Your task to perform on an android device: Open the web browser Image 0: 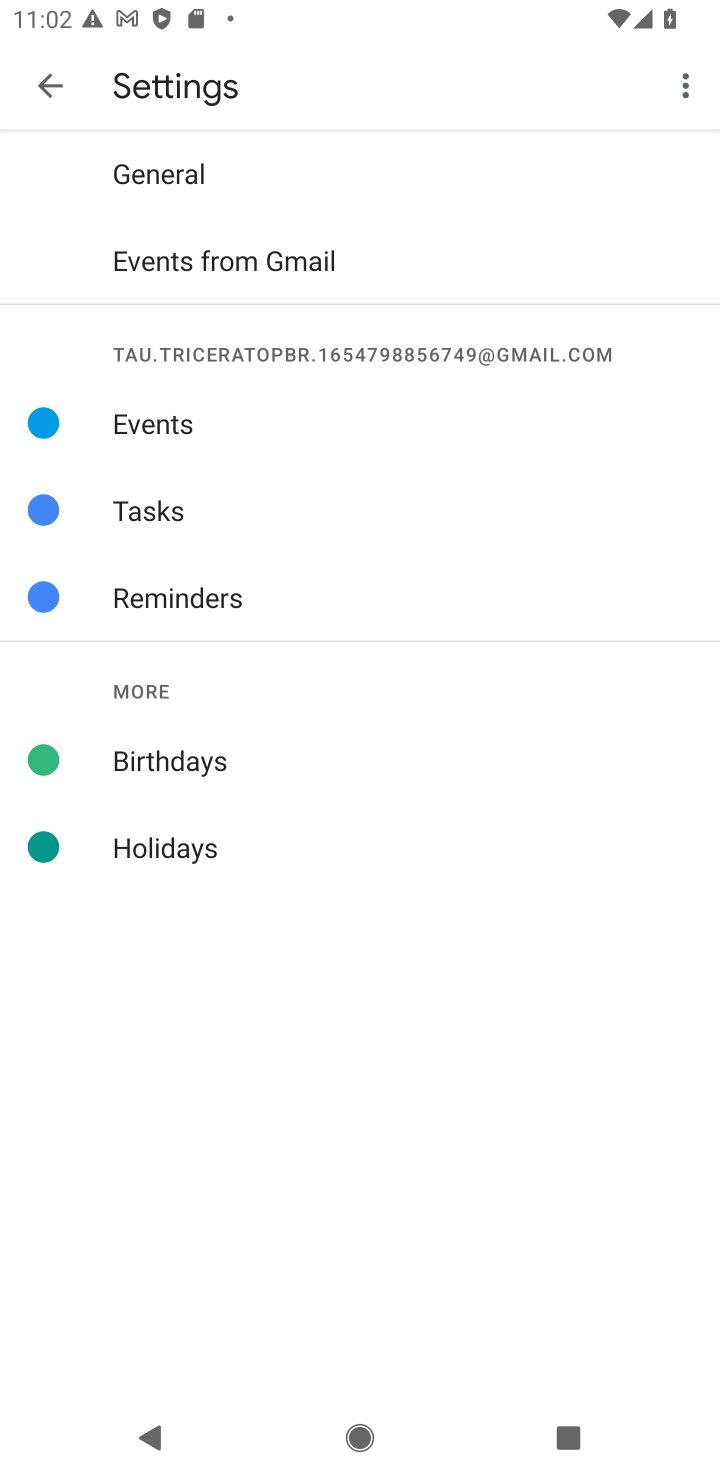
Step 0: press home button
Your task to perform on an android device: Open the web browser Image 1: 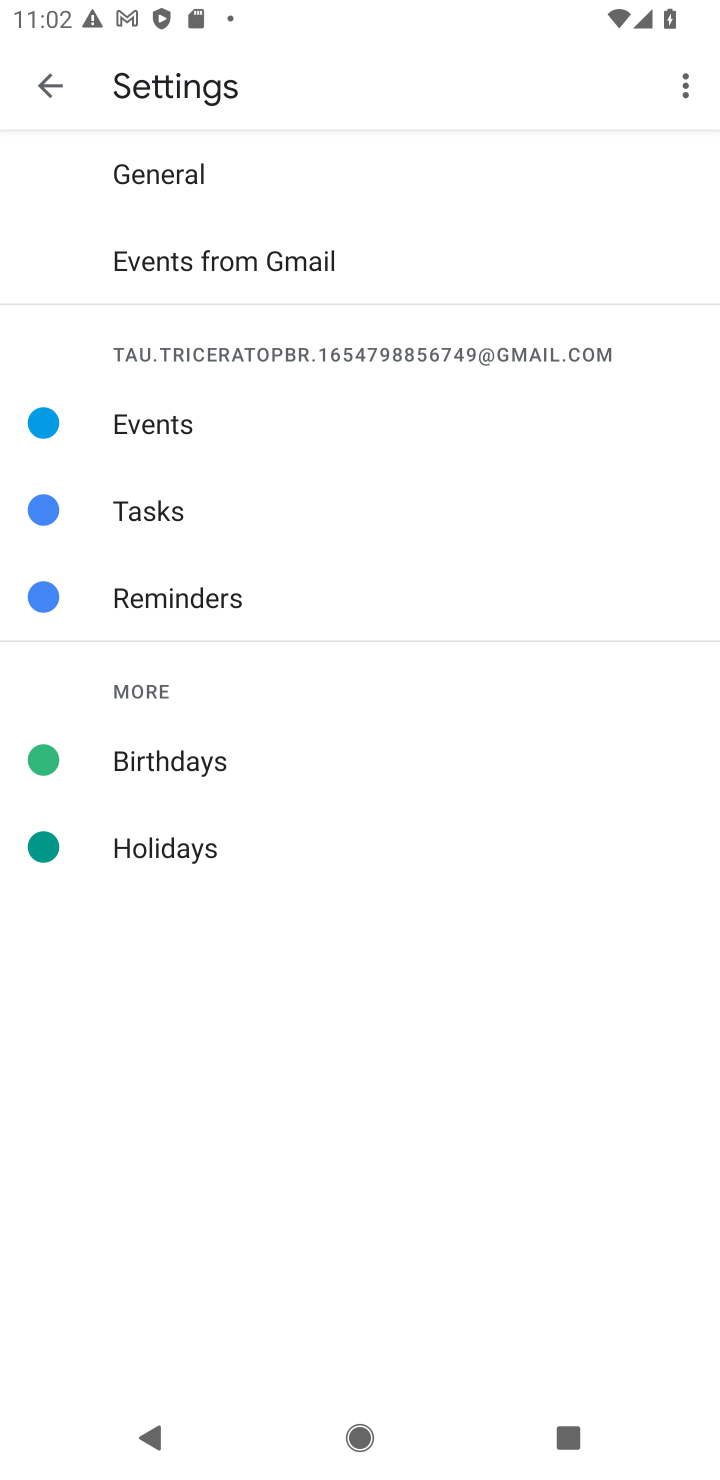
Step 1: press home button
Your task to perform on an android device: Open the web browser Image 2: 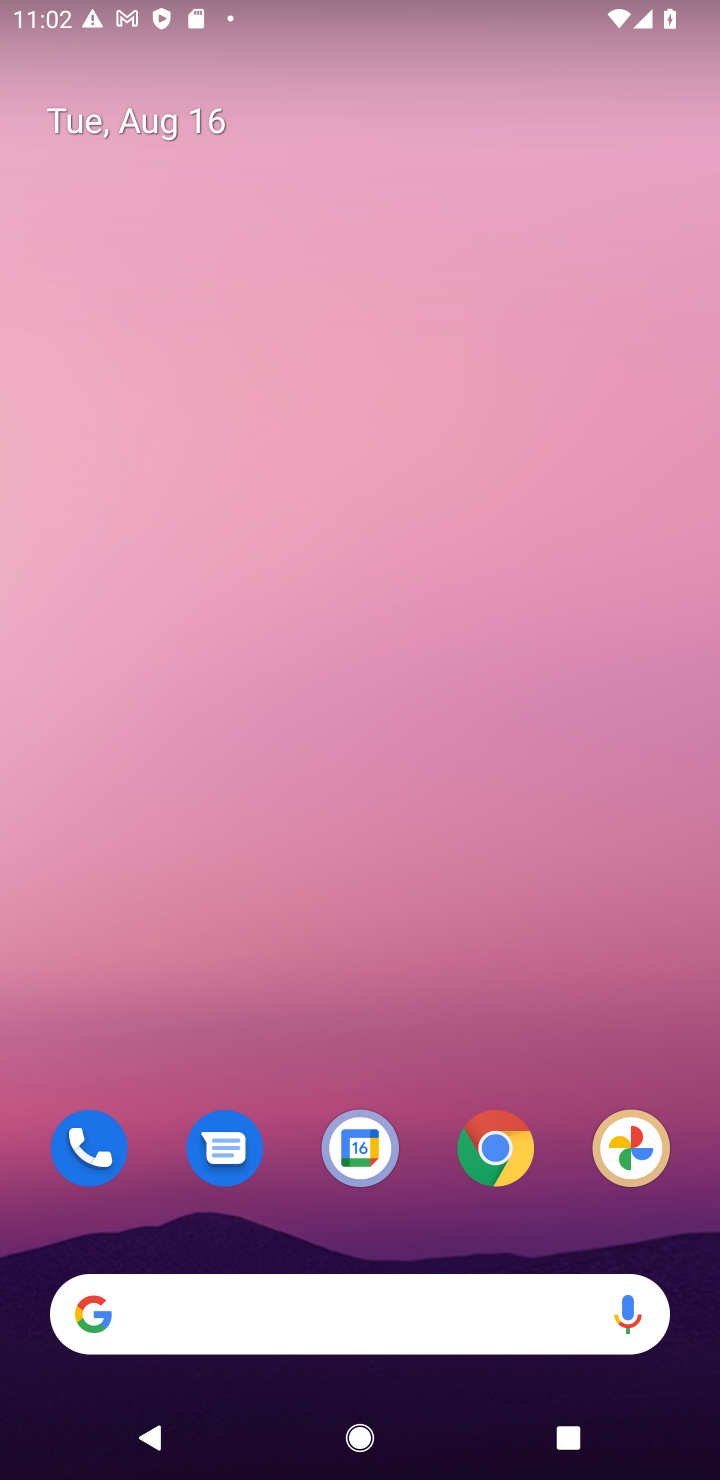
Step 2: press home button
Your task to perform on an android device: Open the web browser Image 3: 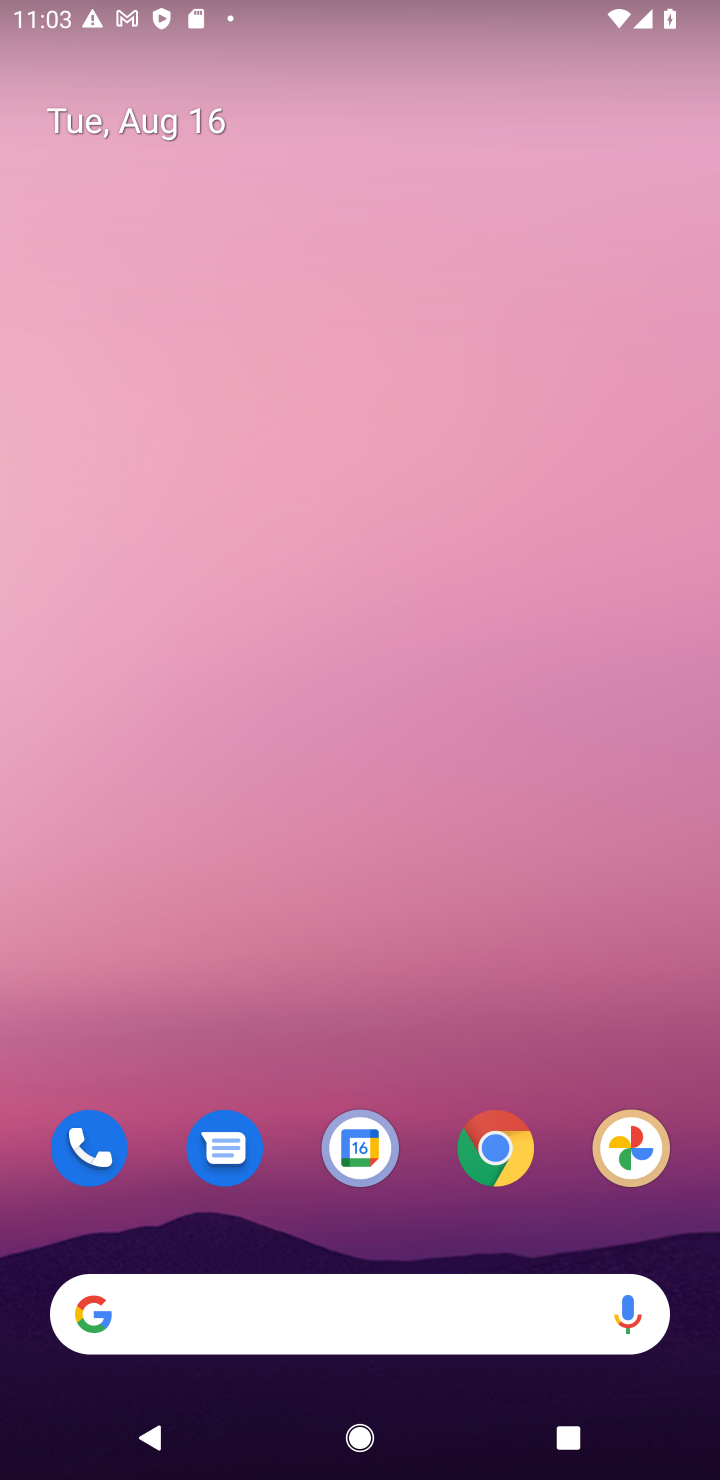
Step 3: drag from (635, 1371) to (238, 10)
Your task to perform on an android device: Open the web browser Image 4: 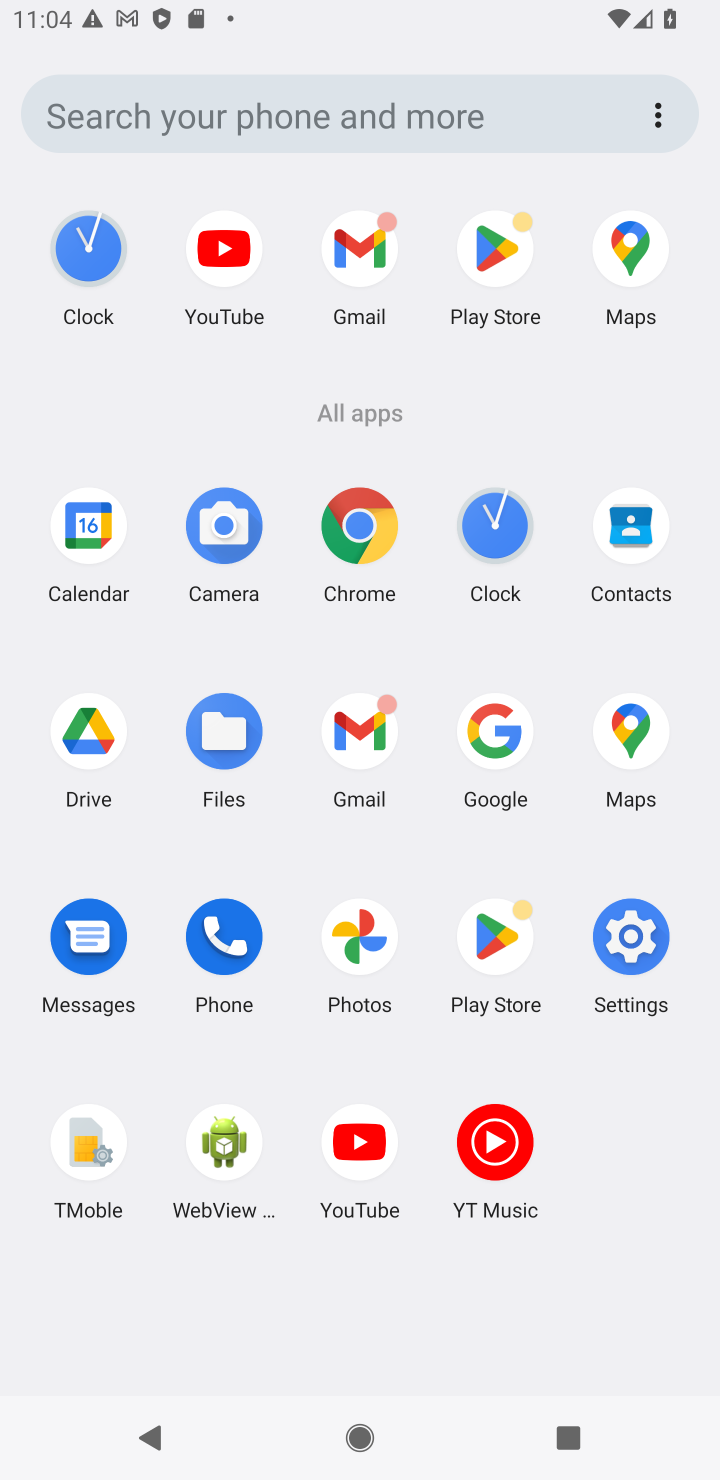
Step 4: click (358, 519)
Your task to perform on an android device: Open the web browser Image 5: 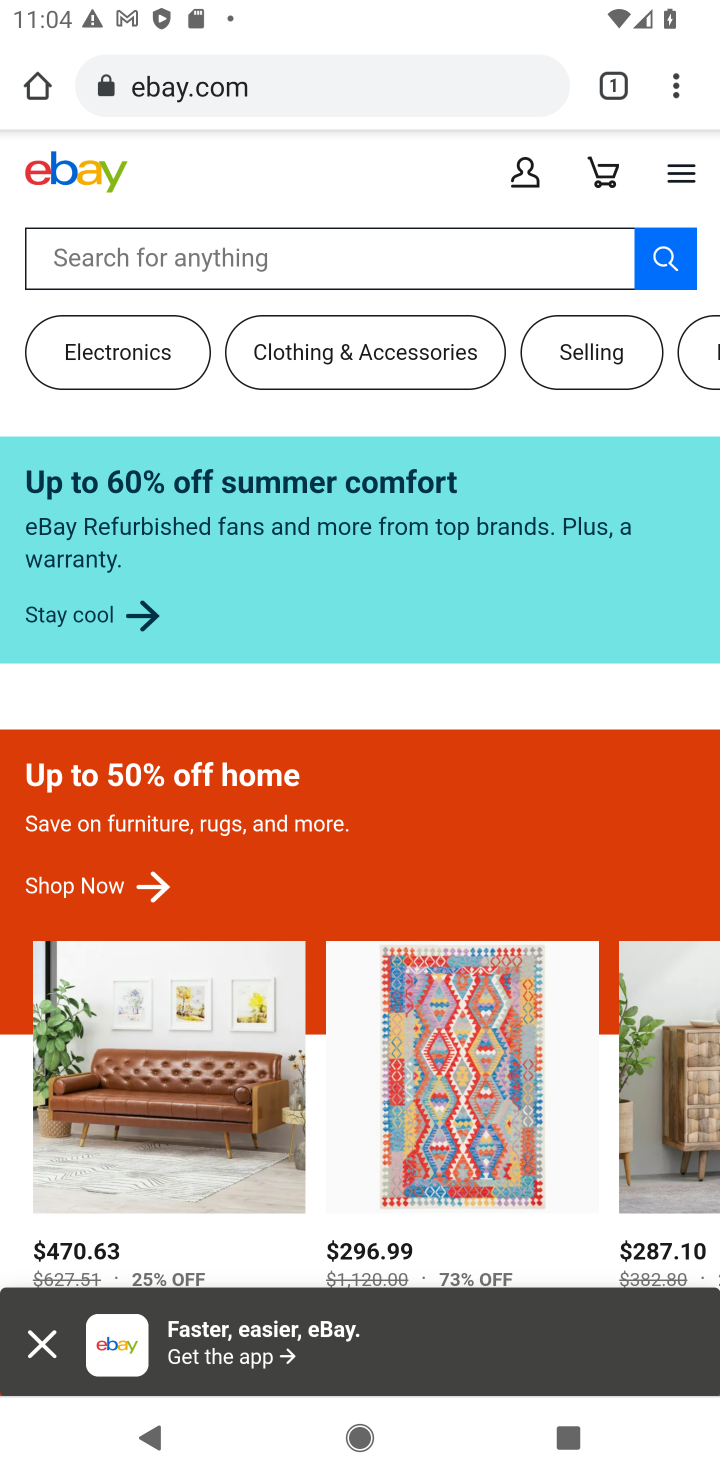
Step 5: click (214, 96)
Your task to perform on an android device: Open the web browser Image 6: 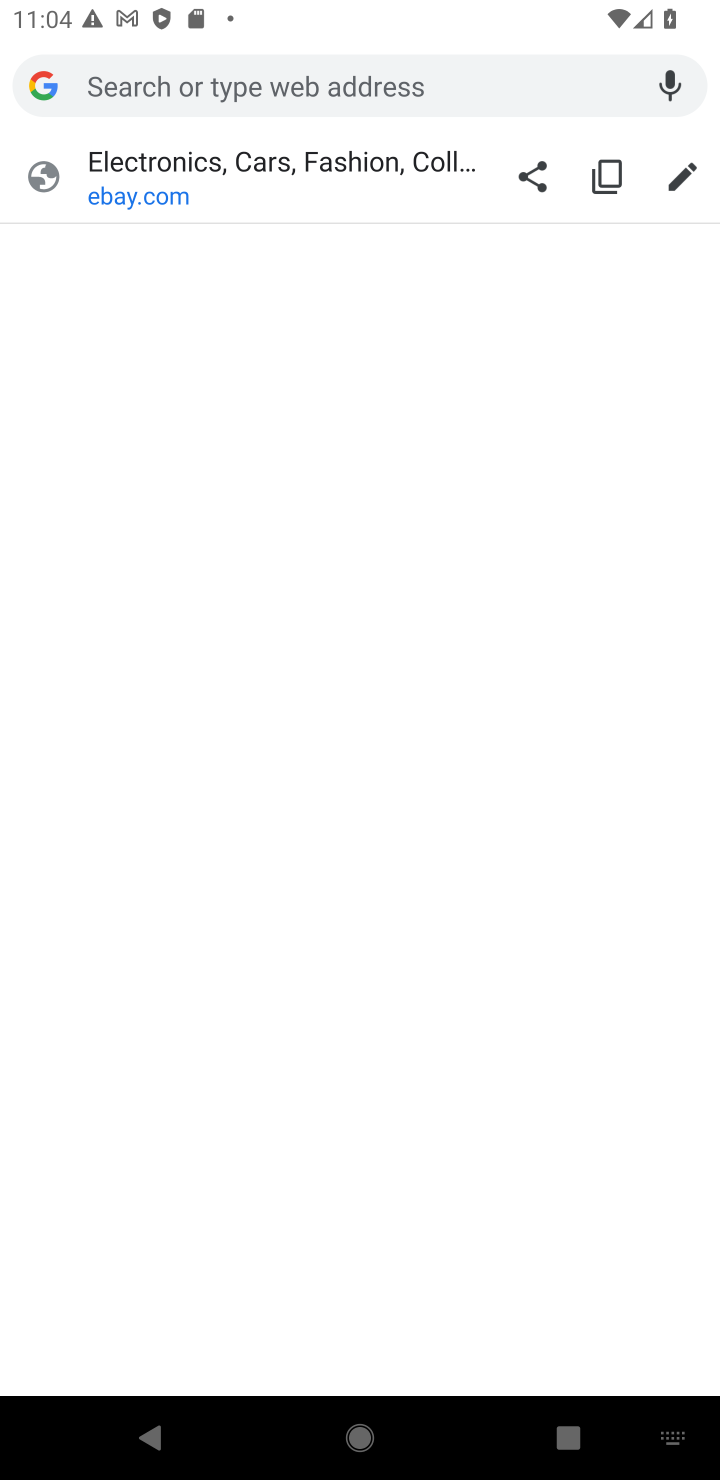
Step 6: type " web browser"
Your task to perform on an android device: Open the web browser Image 7: 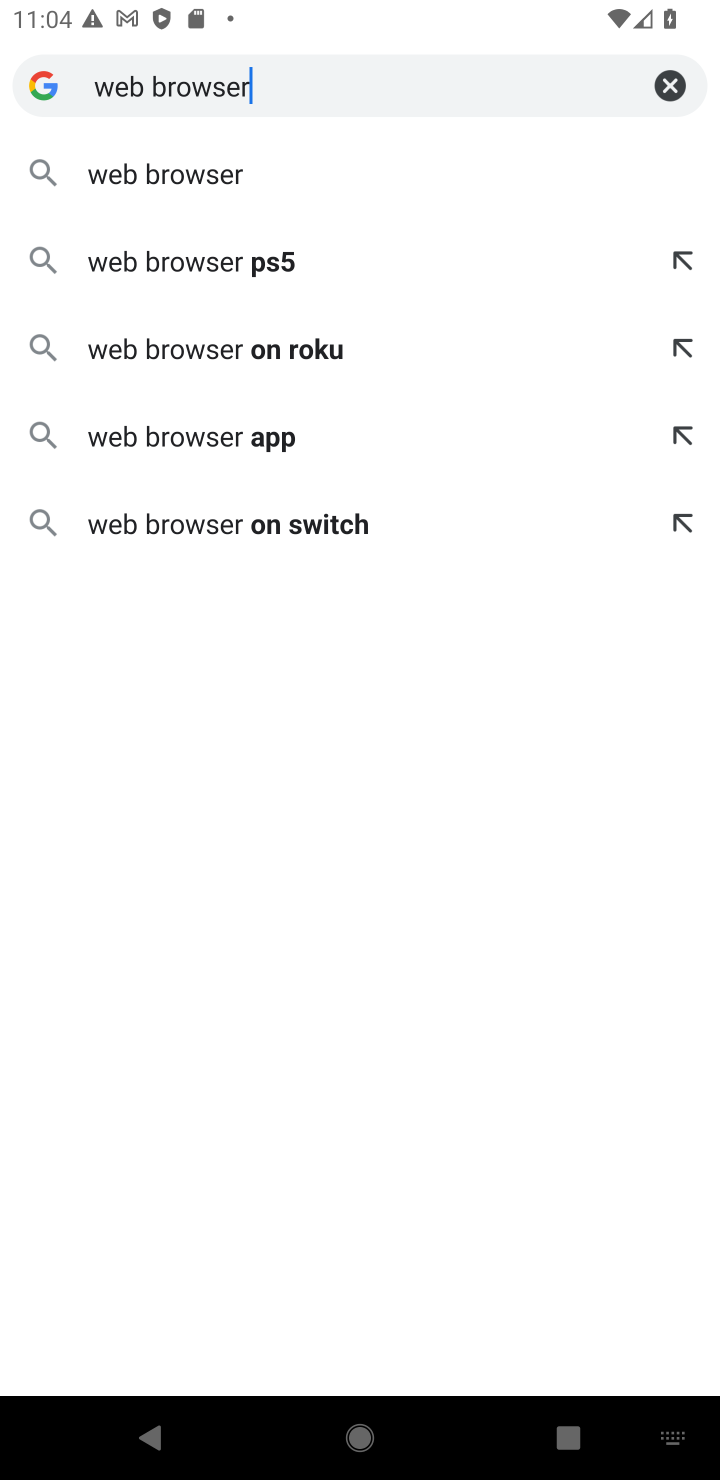
Step 7: click (162, 147)
Your task to perform on an android device: Open the web browser Image 8: 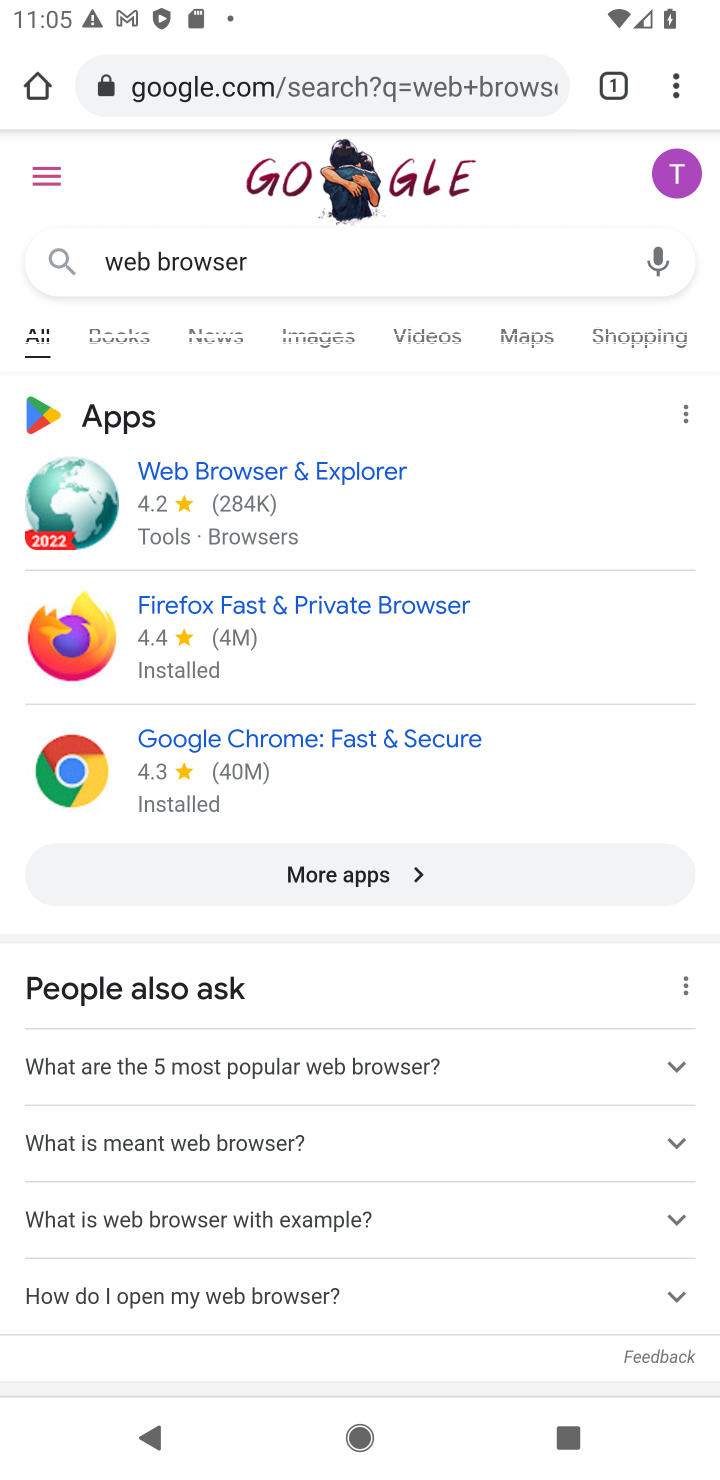
Step 8: task complete